Your task to perform on an android device: Show me the alarms in the clock app Image 0: 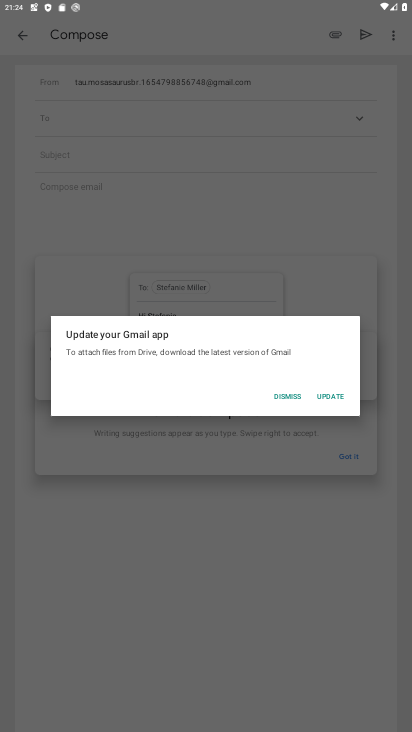
Step 0: press home button
Your task to perform on an android device: Show me the alarms in the clock app Image 1: 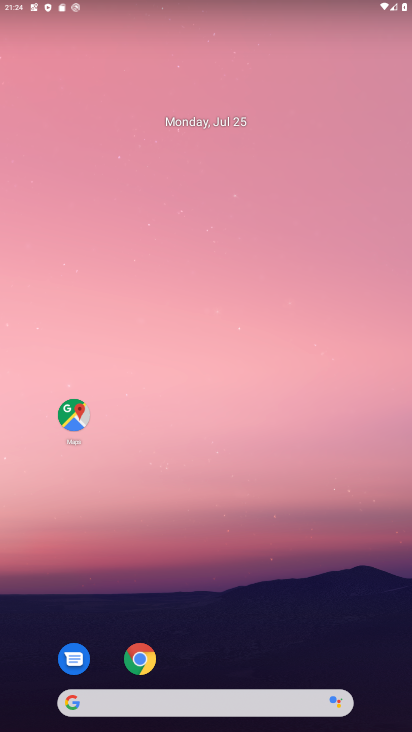
Step 1: drag from (200, 654) to (143, 192)
Your task to perform on an android device: Show me the alarms in the clock app Image 2: 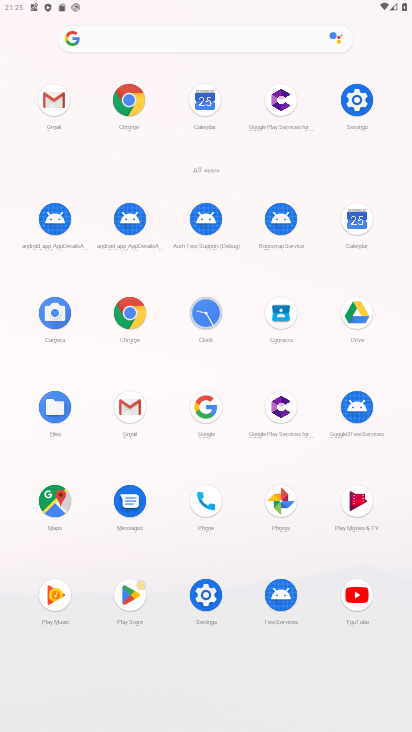
Step 2: click (211, 311)
Your task to perform on an android device: Show me the alarms in the clock app Image 3: 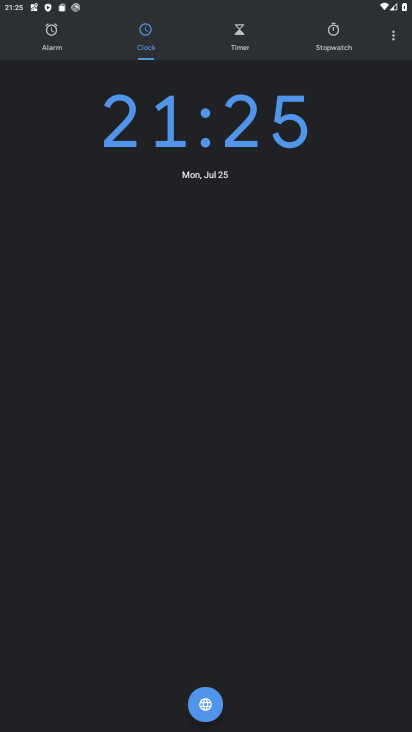
Step 3: click (35, 49)
Your task to perform on an android device: Show me the alarms in the clock app Image 4: 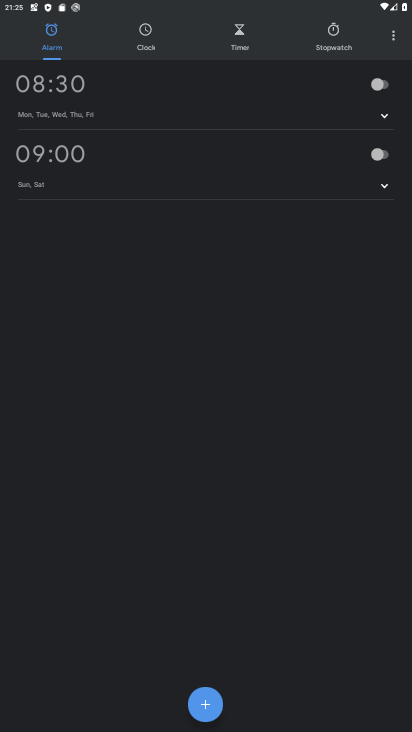
Step 4: task complete